Your task to perform on an android device: change the clock display to analog Image 0: 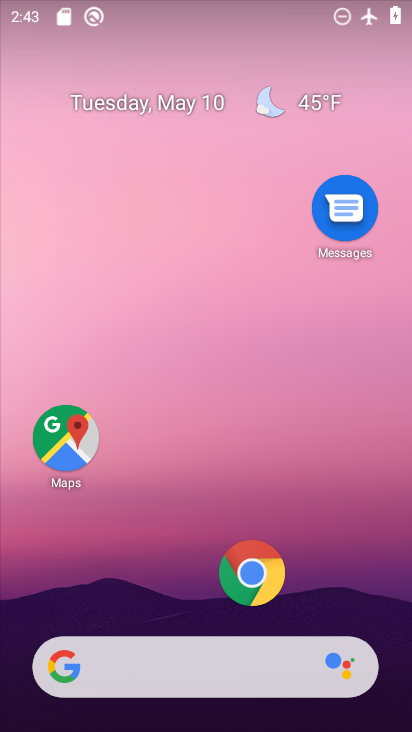
Step 0: drag from (198, 608) to (208, 110)
Your task to perform on an android device: change the clock display to analog Image 1: 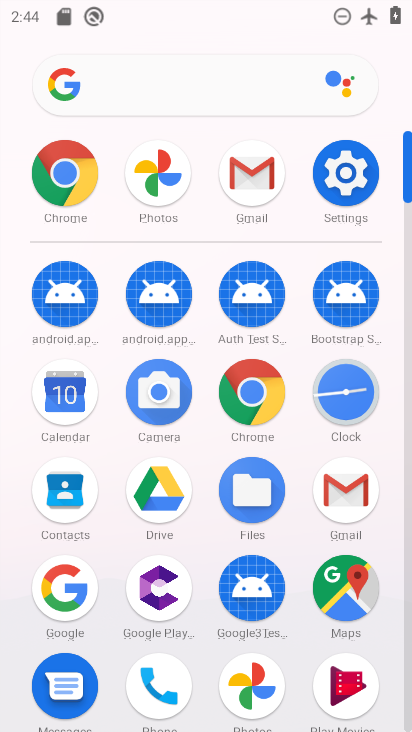
Step 1: click (350, 414)
Your task to perform on an android device: change the clock display to analog Image 2: 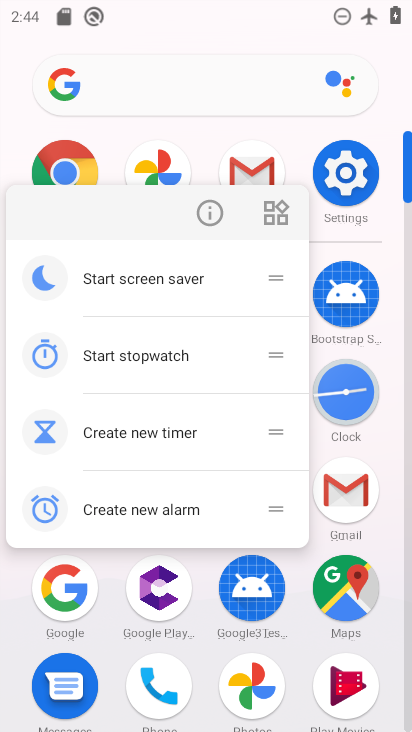
Step 2: click (200, 196)
Your task to perform on an android device: change the clock display to analog Image 3: 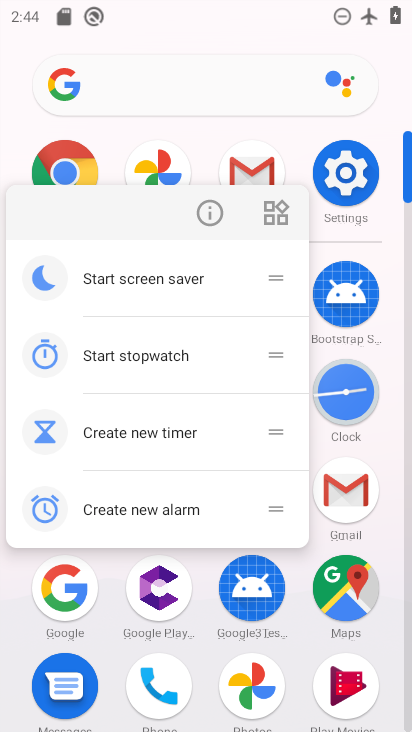
Step 3: click (200, 196)
Your task to perform on an android device: change the clock display to analog Image 4: 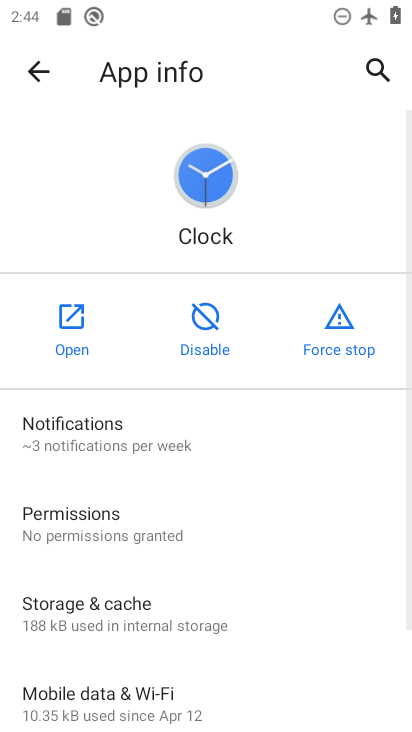
Step 4: click (80, 310)
Your task to perform on an android device: change the clock display to analog Image 5: 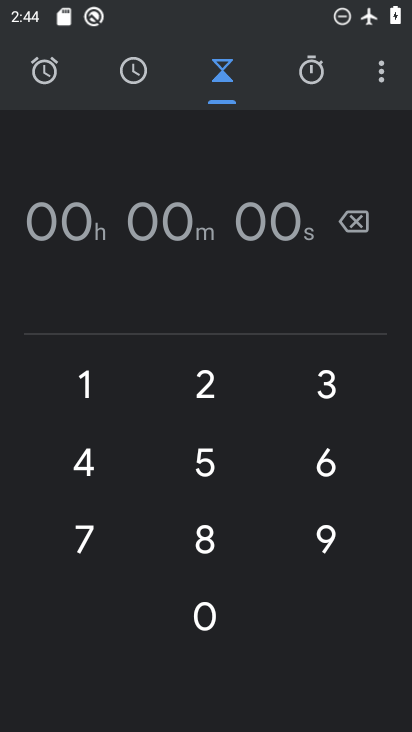
Step 5: click (384, 77)
Your task to perform on an android device: change the clock display to analog Image 6: 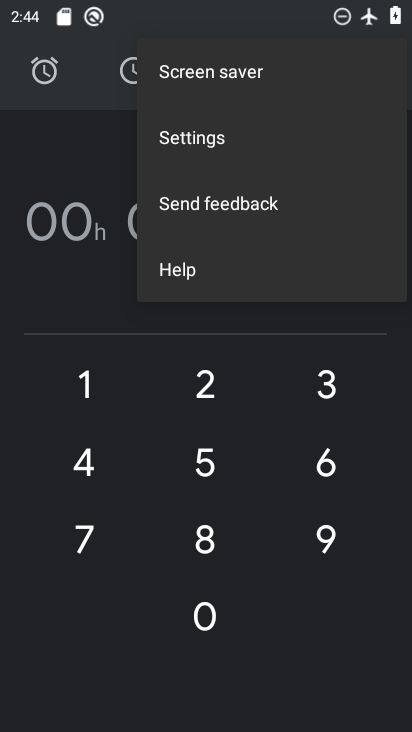
Step 6: click (240, 143)
Your task to perform on an android device: change the clock display to analog Image 7: 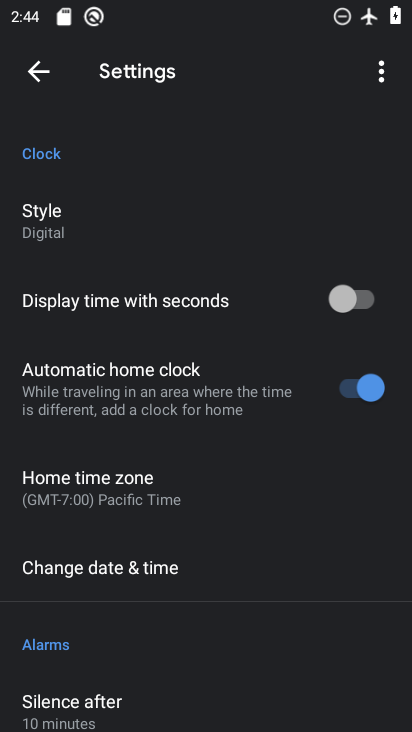
Step 7: drag from (143, 648) to (148, 311)
Your task to perform on an android device: change the clock display to analog Image 8: 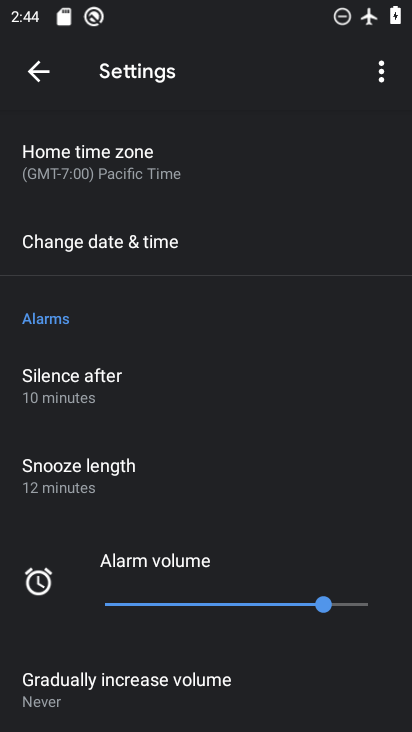
Step 8: drag from (242, 623) to (232, 385)
Your task to perform on an android device: change the clock display to analog Image 9: 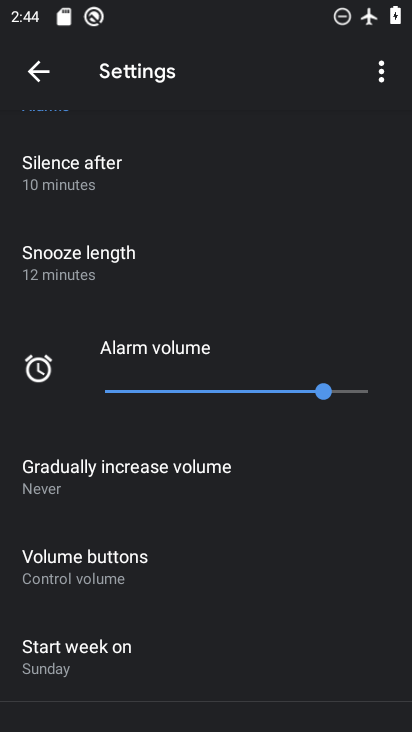
Step 9: drag from (220, 290) to (247, 698)
Your task to perform on an android device: change the clock display to analog Image 10: 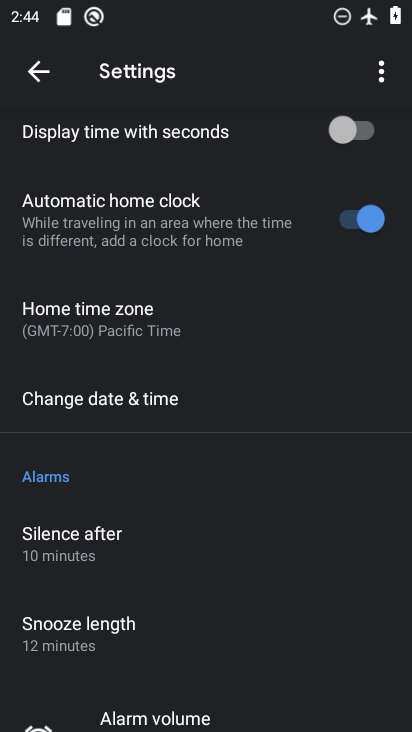
Step 10: drag from (186, 342) to (266, 618)
Your task to perform on an android device: change the clock display to analog Image 11: 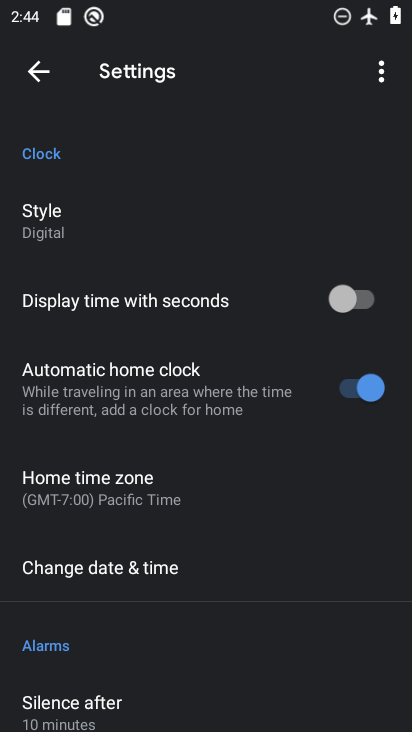
Step 11: click (97, 223)
Your task to perform on an android device: change the clock display to analog Image 12: 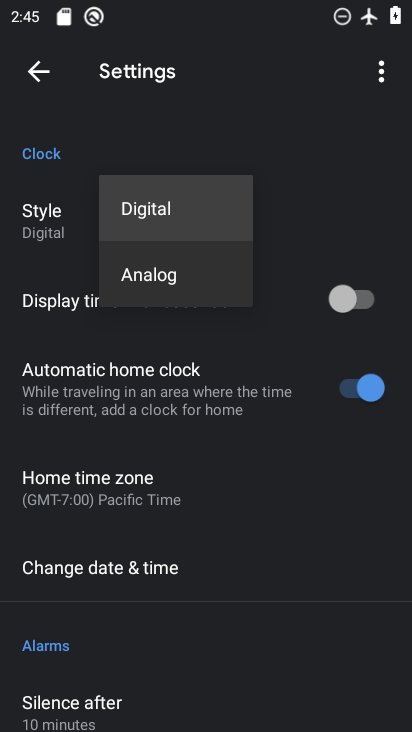
Step 12: click (159, 288)
Your task to perform on an android device: change the clock display to analog Image 13: 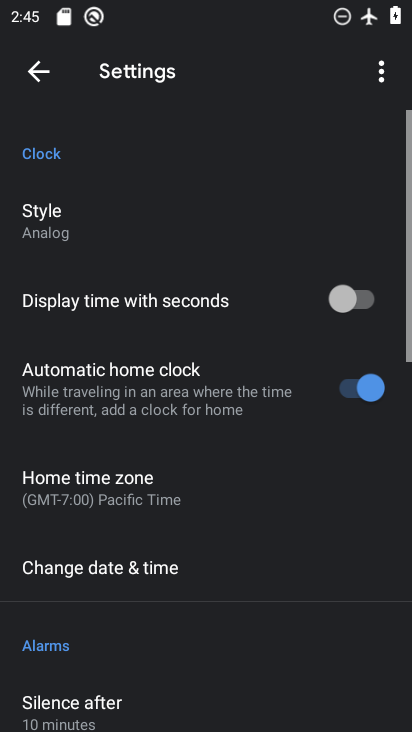
Step 13: task complete